Your task to perform on an android device: Search for vegetarian restaurants on Maps Image 0: 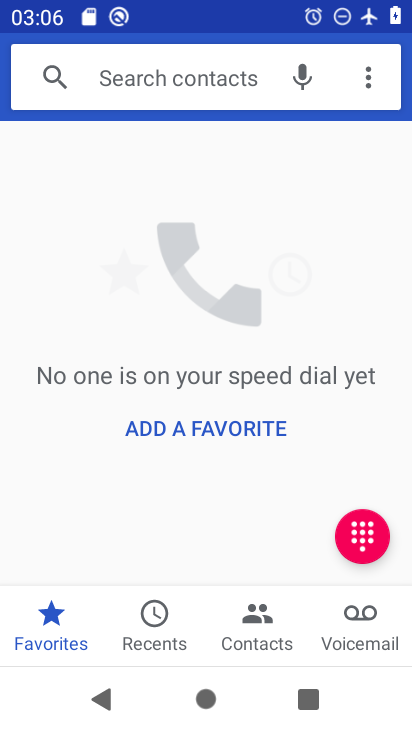
Step 0: press home button
Your task to perform on an android device: Search for vegetarian restaurants on Maps Image 1: 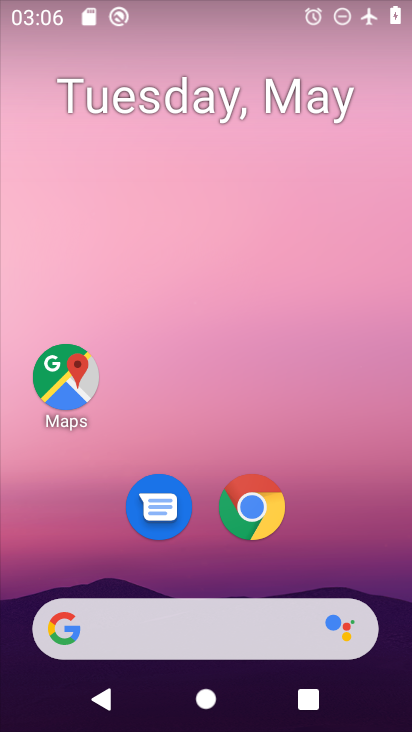
Step 1: click (62, 381)
Your task to perform on an android device: Search for vegetarian restaurants on Maps Image 2: 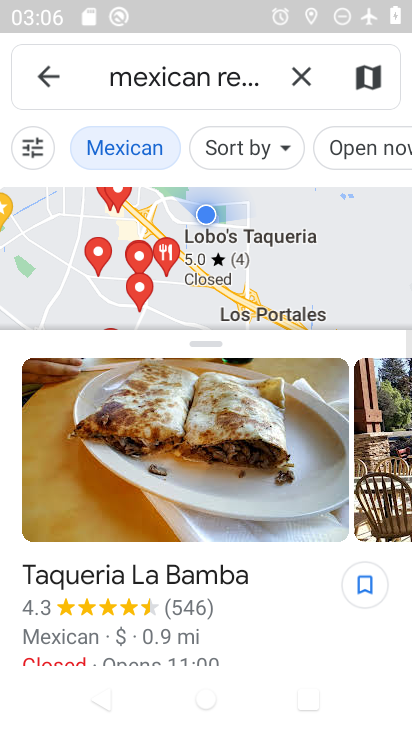
Step 2: click (290, 71)
Your task to perform on an android device: Search for vegetarian restaurants on Maps Image 3: 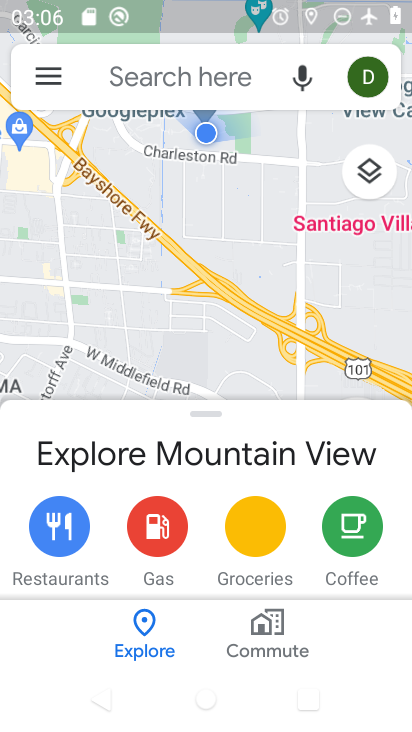
Step 3: click (247, 68)
Your task to perform on an android device: Search for vegetarian restaurants on Maps Image 4: 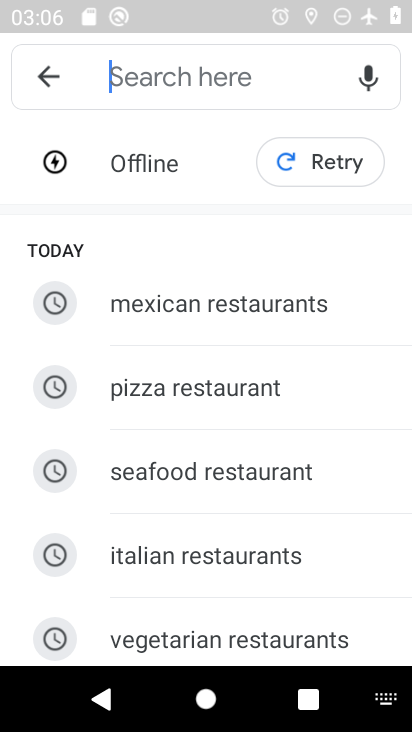
Step 4: click (179, 628)
Your task to perform on an android device: Search for vegetarian restaurants on Maps Image 5: 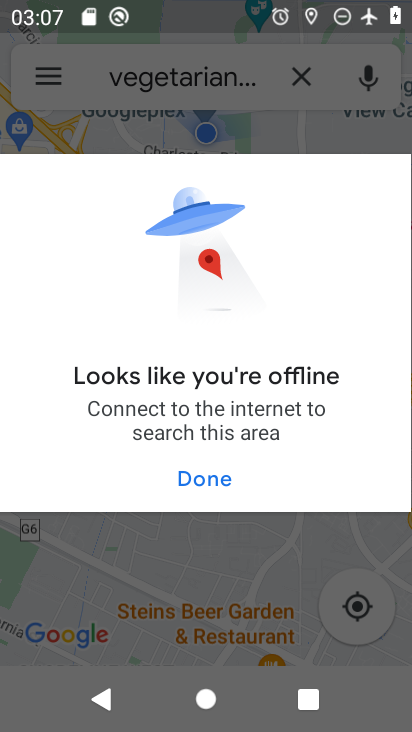
Step 5: task complete